Your task to perform on an android device: check android version Image 0: 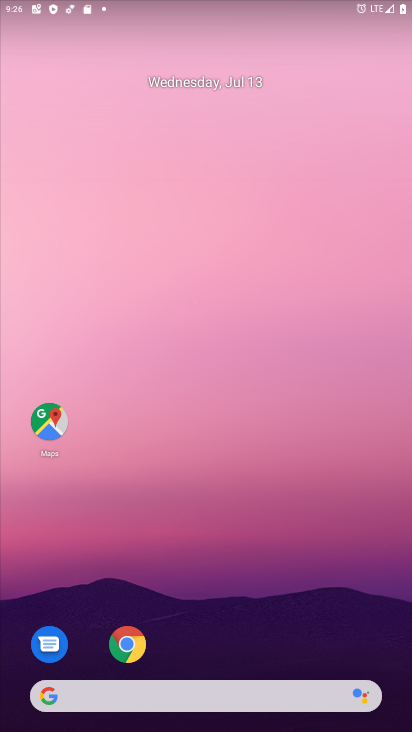
Step 0: drag from (254, 728) to (253, 67)
Your task to perform on an android device: check android version Image 1: 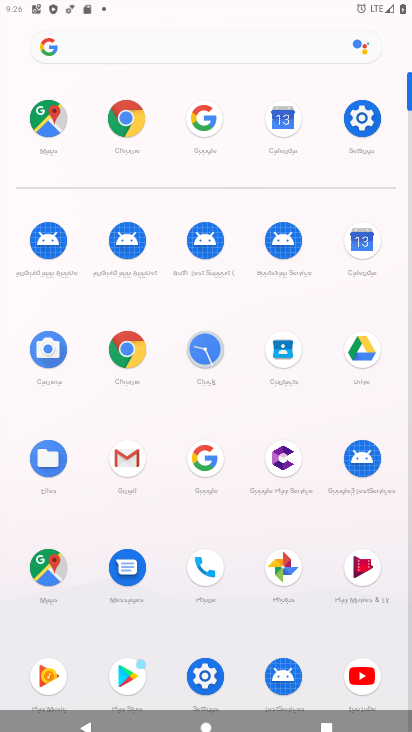
Step 1: click (364, 112)
Your task to perform on an android device: check android version Image 2: 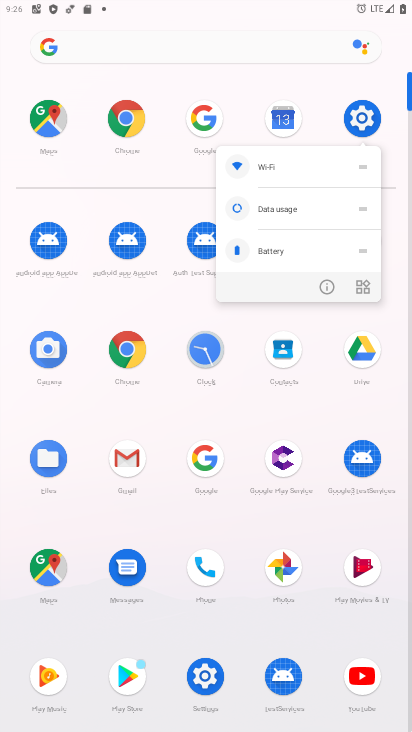
Step 2: click (357, 119)
Your task to perform on an android device: check android version Image 3: 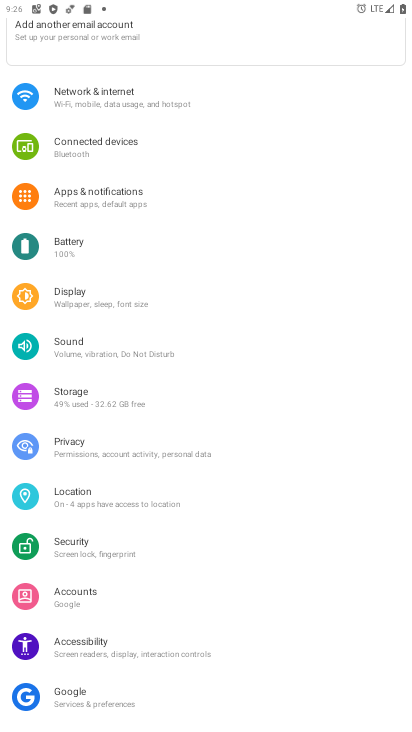
Step 3: drag from (116, 673) to (122, 202)
Your task to perform on an android device: check android version Image 4: 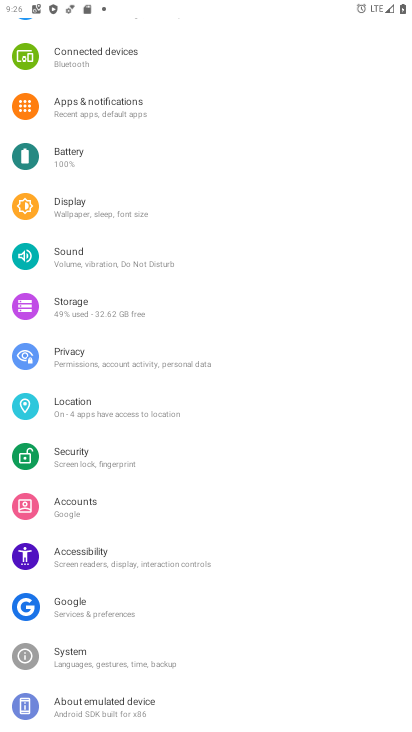
Step 4: drag from (167, 678) to (167, 510)
Your task to perform on an android device: check android version Image 5: 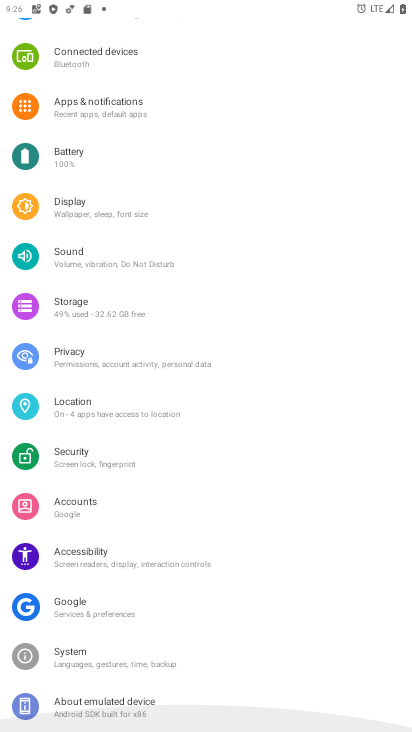
Step 5: drag from (167, 361) to (167, 292)
Your task to perform on an android device: check android version Image 6: 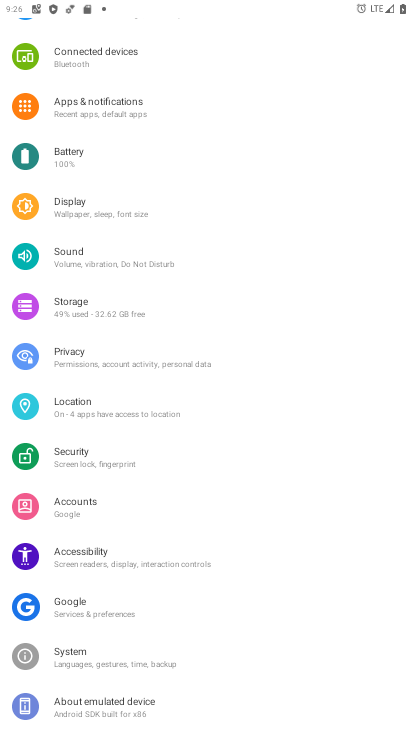
Step 6: click (79, 703)
Your task to perform on an android device: check android version Image 7: 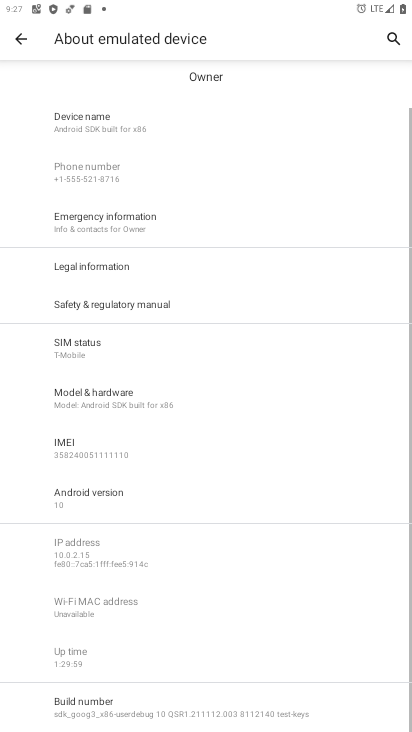
Step 7: click (94, 491)
Your task to perform on an android device: check android version Image 8: 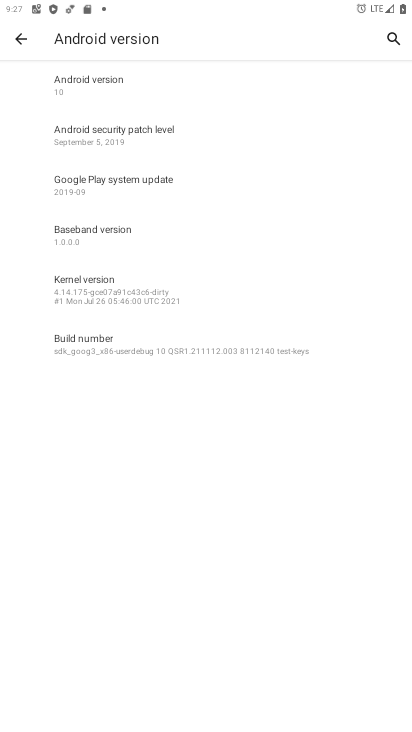
Step 8: task complete